Your task to perform on an android device: What is the recent news? Image 0: 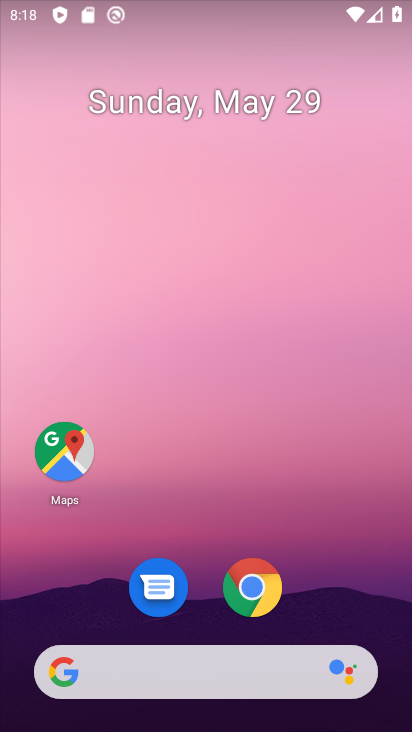
Step 0: click (160, 676)
Your task to perform on an android device: What is the recent news? Image 1: 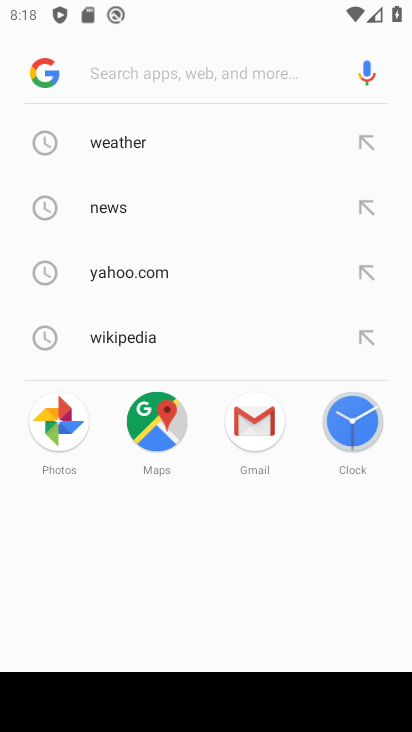
Step 1: click (147, 212)
Your task to perform on an android device: What is the recent news? Image 2: 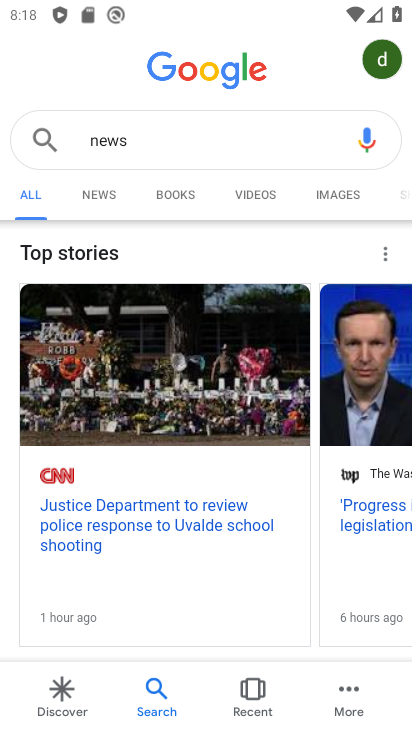
Step 2: task complete